Your task to perform on an android device: Go to Yahoo.com Image 0: 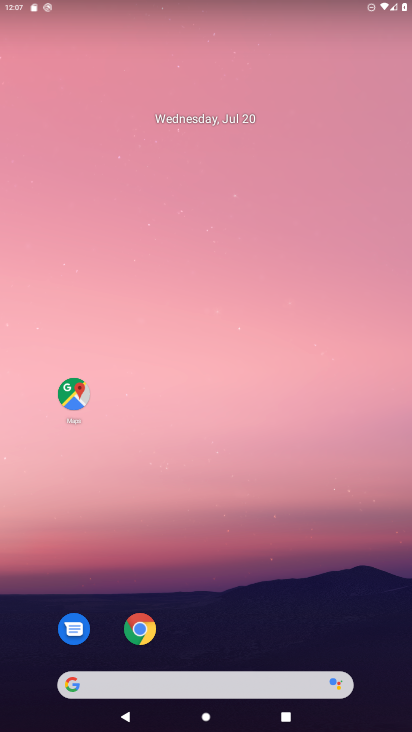
Step 0: click (133, 629)
Your task to perform on an android device: Go to Yahoo.com Image 1: 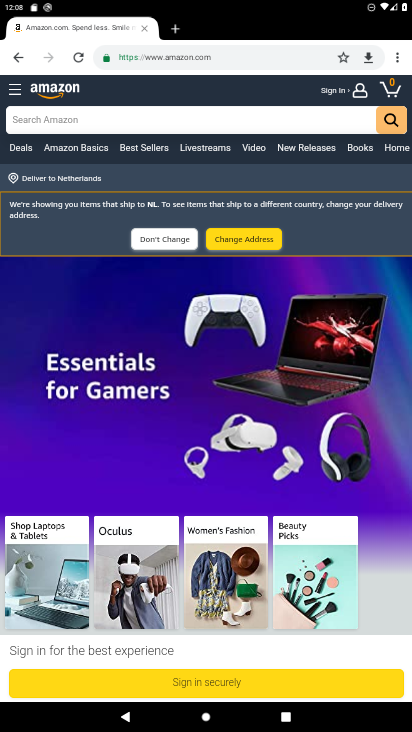
Step 1: click (17, 55)
Your task to perform on an android device: Go to Yahoo.com Image 2: 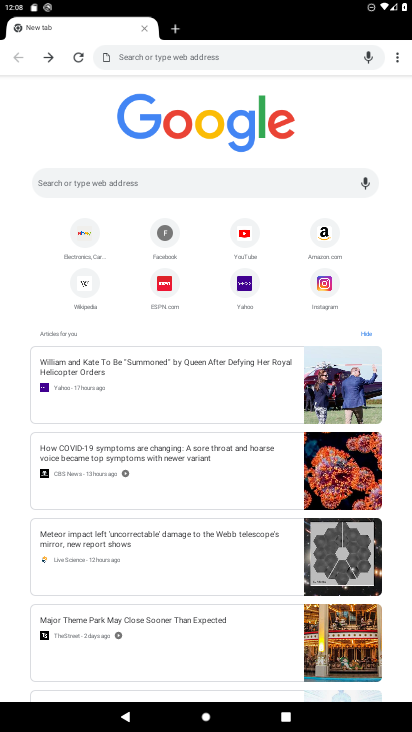
Step 2: click (237, 287)
Your task to perform on an android device: Go to Yahoo.com Image 3: 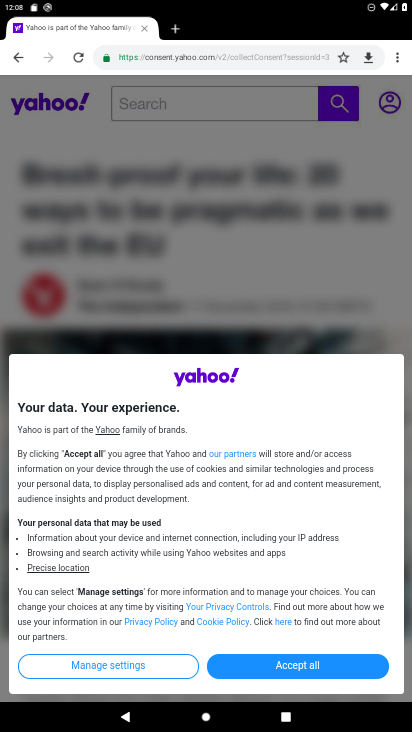
Step 3: task complete